Your task to perform on an android device: star an email in the gmail app Image 0: 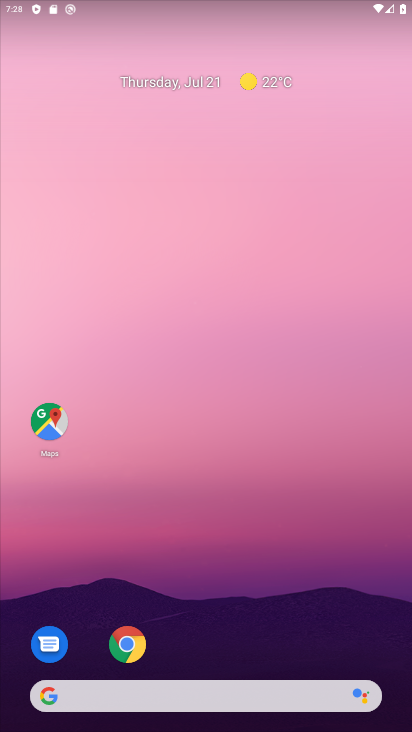
Step 0: drag from (346, 597) to (373, 137)
Your task to perform on an android device: star an email in the gmail app Image 1: 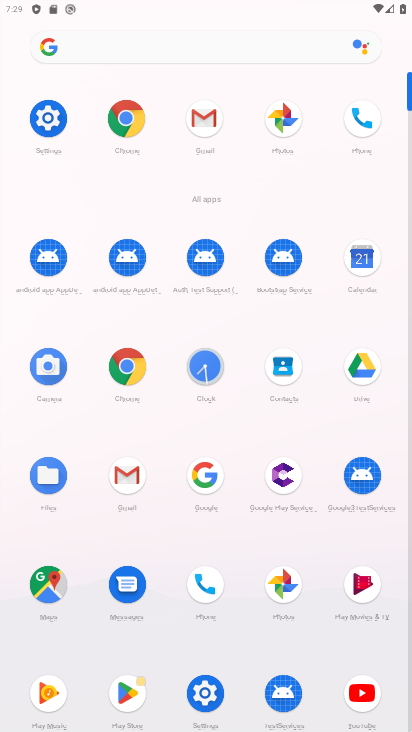
Step 1: click (122, 479)
Your task to perform on an android device: star an email in the gmail app Image 2: 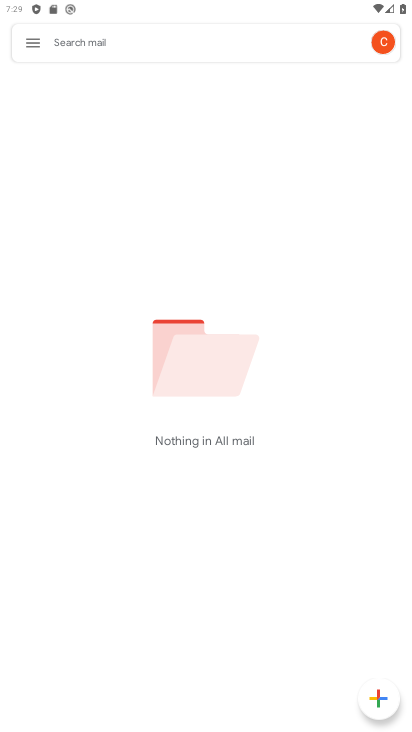
Step 2: task complete